Your task to perform on an android device: Open Google Chrome Image 0: 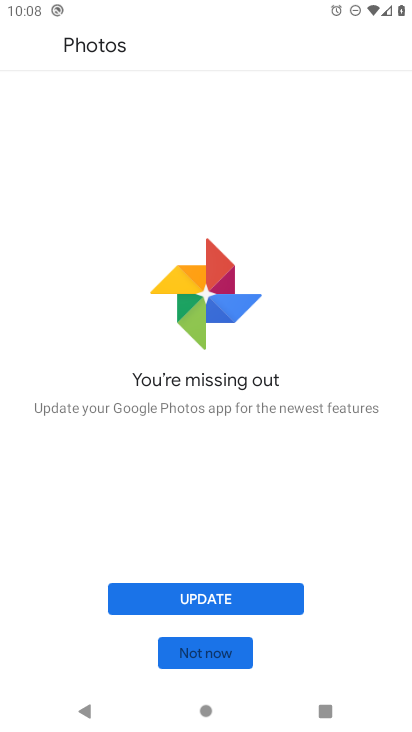
Step 0: press home button
Your task to perform on an android device: Open Google Chrome Image 1: 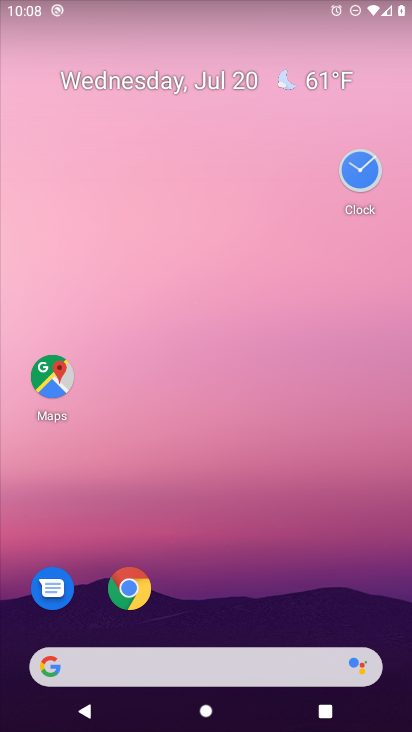
Step 1: click (119, 600)
Your task to perform on an android device: Open Google Chrome Image 2: 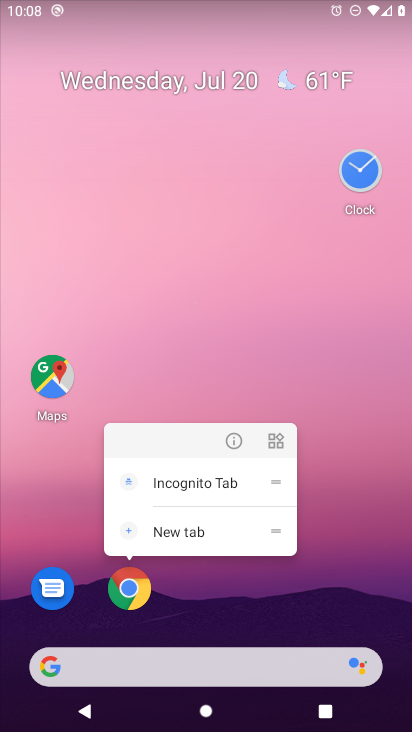
Step 2: click (114, 581)
Your task to perform on an android device: Open Google Chrome Image 3: 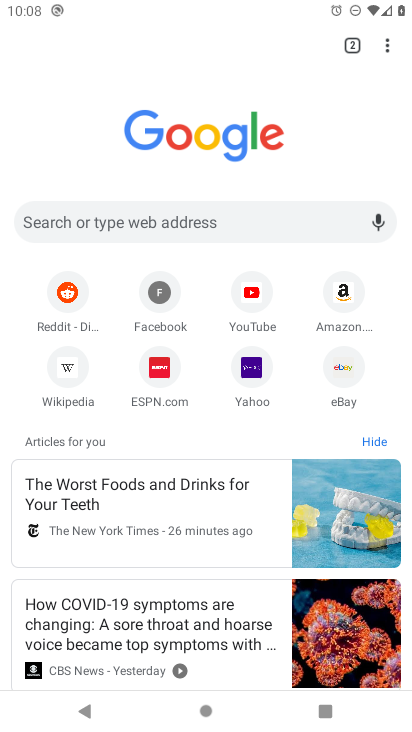
Step 3: task complete